Your task to perform on an android device: toggle translation in the chrome app Image 0: 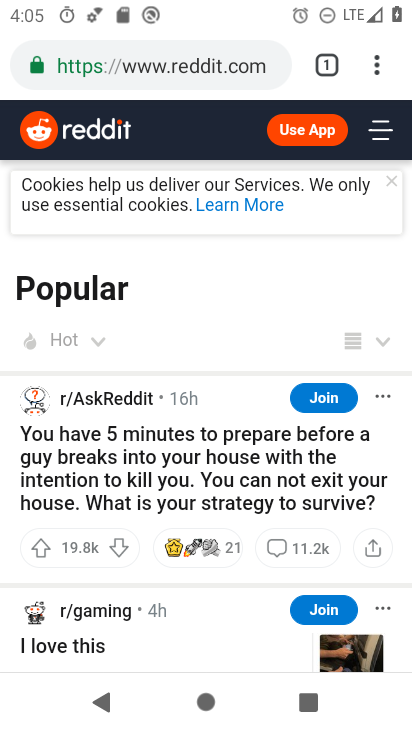
Step 0: press home button
Your task to perform on an android device: toggle translation in the chrome app Image 1: 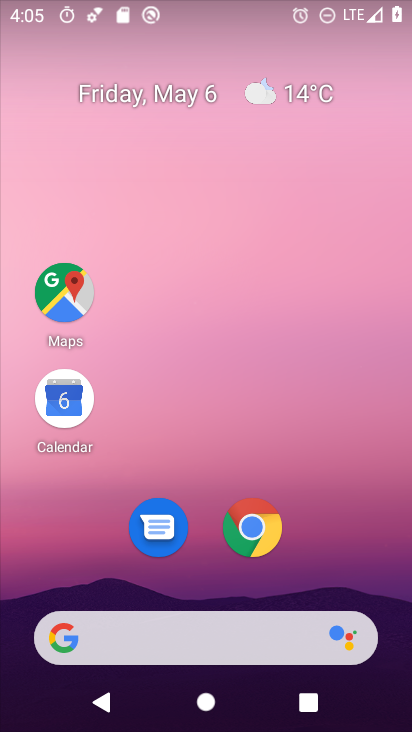
Step 1: click (267, 522)
Your task to perform on an android device: toggle translation in the chrome app Image 2: 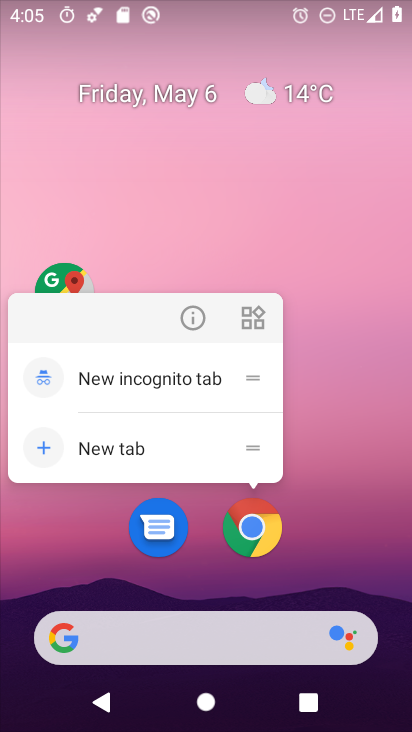
Step 2: click (253, 527)
Your task to perform on an android device: toggle translation in the chrome app Image 3: 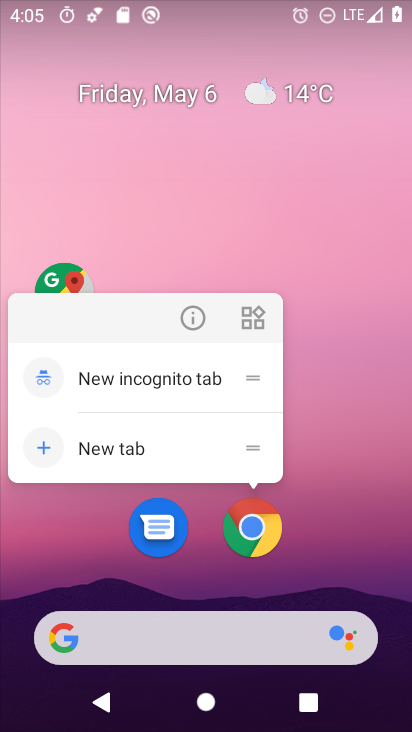
Step 3: click (249, 533)
Your task to perform on an android device: toggle translation in the chrome app Image 4: 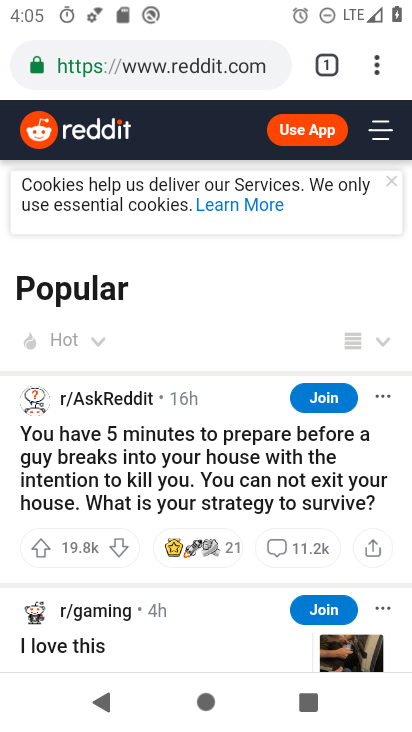
Step 4: drag from (375, 60) to (193, 580)
Your task to perform on an android device: toggle translation in the chrome app Image 5: 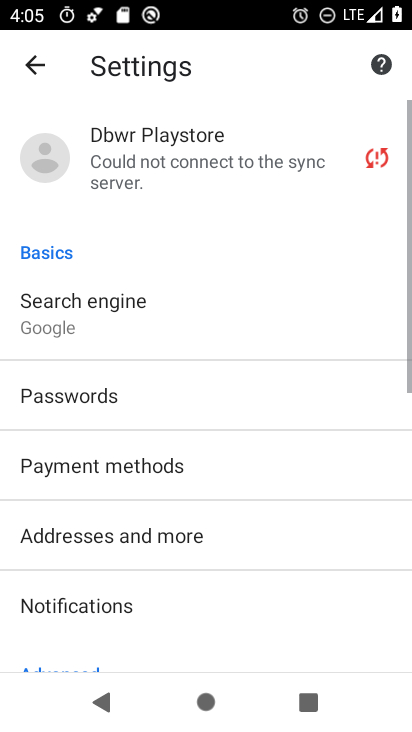
Step 5: drag from (195, 576) to (306, 140)
Your task to perform on an android device: toggle translation in the chrome app Image 6: 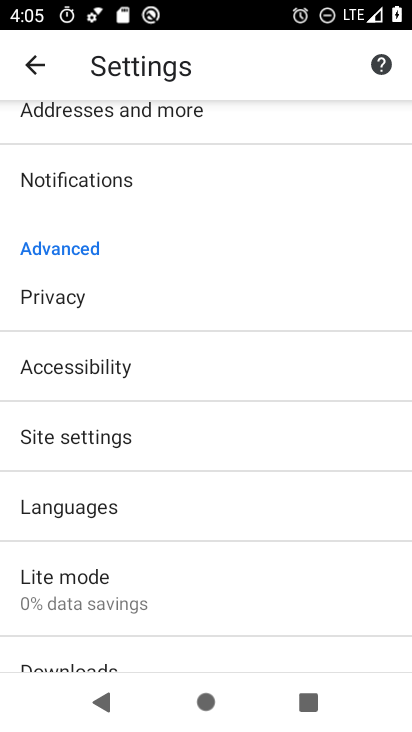
Step 6: click (113, 515)
Your task to perform on an android device: toggle translation in the chrome app Image 7: 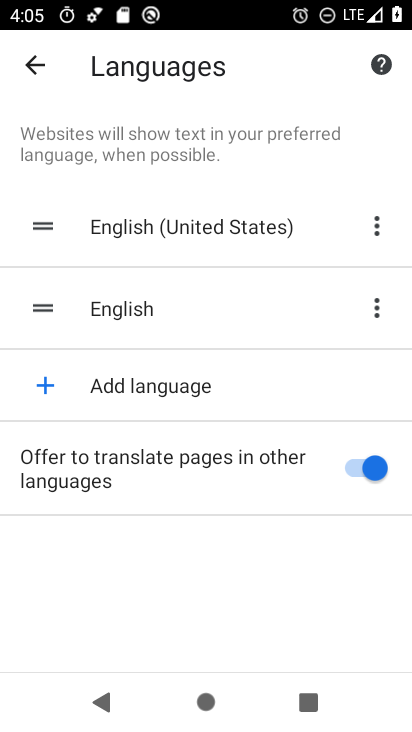
Step 7: click (358, 475)
Your task to perform on an android device: toggle translation in the chrome app Image 8: 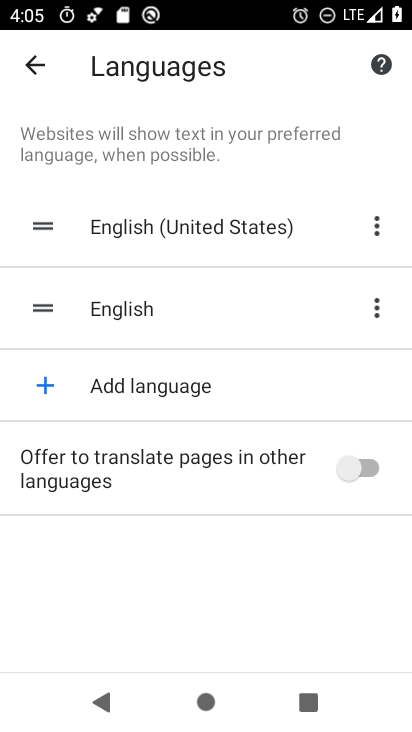
Step 8: task complete